Your task to perform on an android device: Go to Maps Image 0: 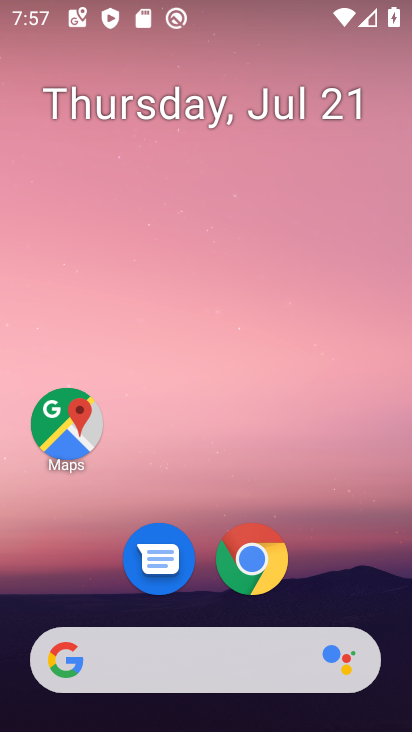
Step 0: drag from (206, 643) to (259, 13)
Your task to perform on an android device: Go to Maps Image 1: 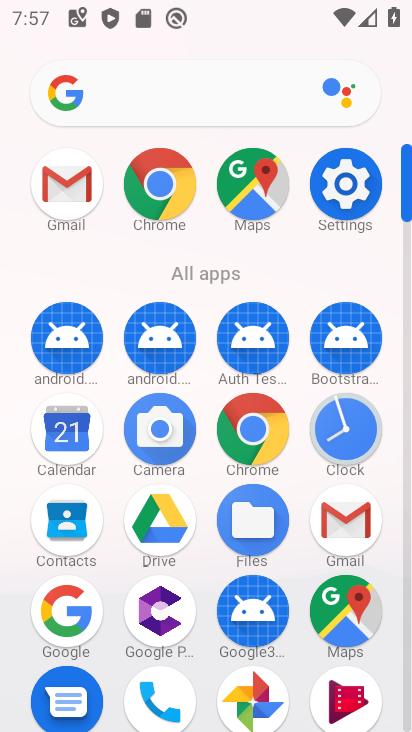
Step 1: click (253, 202)
Your task to perform on an android device: Go to Maps Image 2: 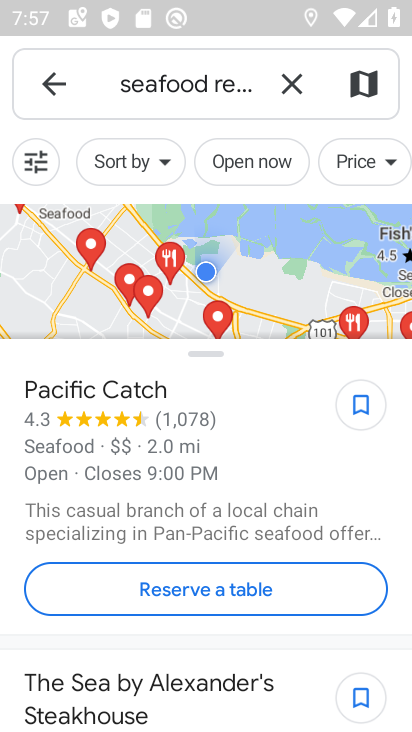
Step 2: task complete